Your task to perform on an android device: Open settings on Google Maps Image 0: 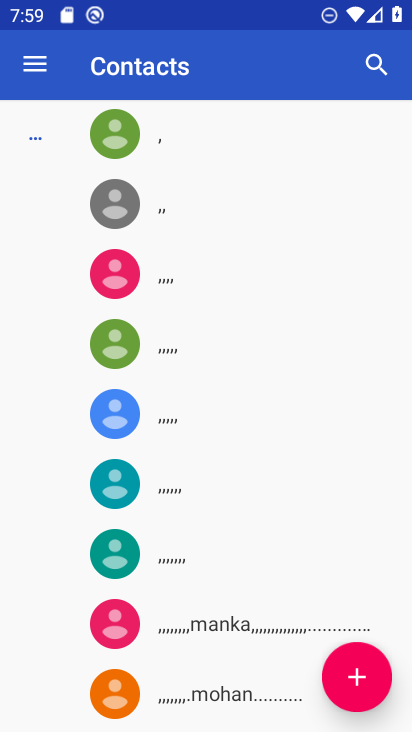
Step 0: press home button
Your task to perform on an android device: Open settings on Google Maps Image 1: 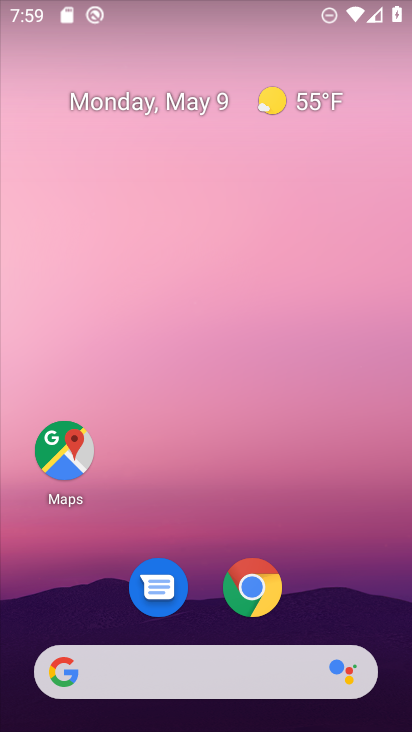
Step 1: drag from (216, 628) to (29, 416)
Your task to perform on an android device: Open settings on Google Maps Image 2: 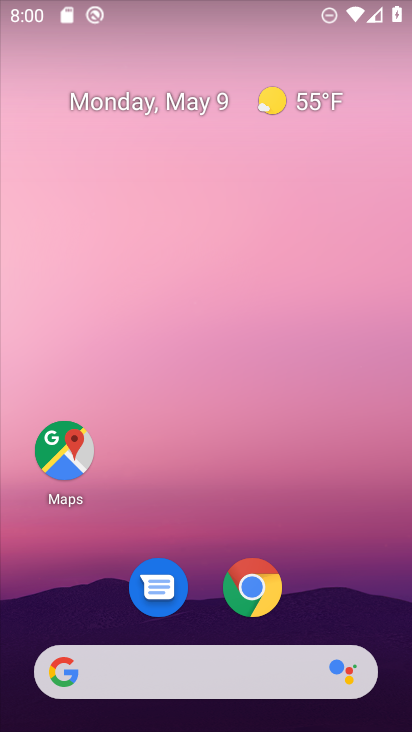
Step 2: drag from (213, 632) to (106, 3)
Your task to perform on an android device: Open settings on Google Maps Image 3: 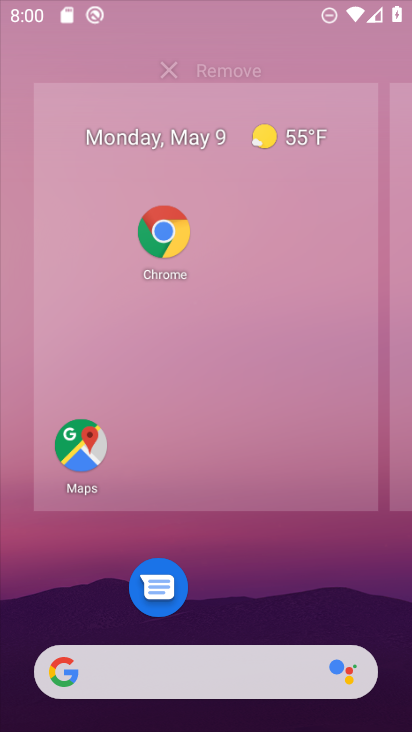
Step 3: click (279, 579)
Your task to perform on an android device: Open settings on Google Maps Image 4: 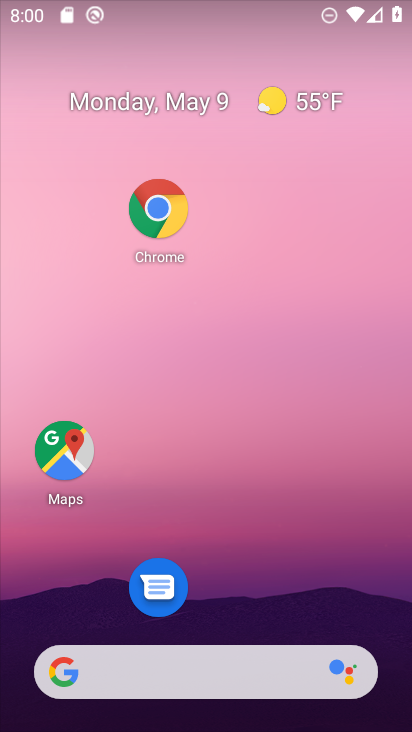
Step 4: drag from (269, 618) to (268, 0)
Your task to perform on an android device: Open settings on Google Maps Image 5: 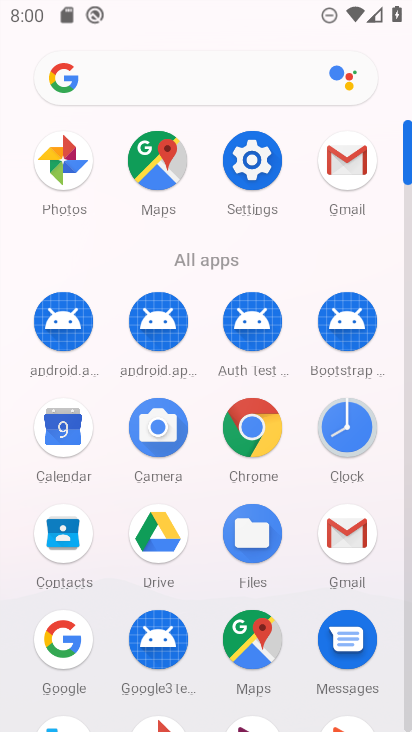
Step 5: click (267, 181)
Your task to perform on an android device: Open settings on Google Maps Image 6: 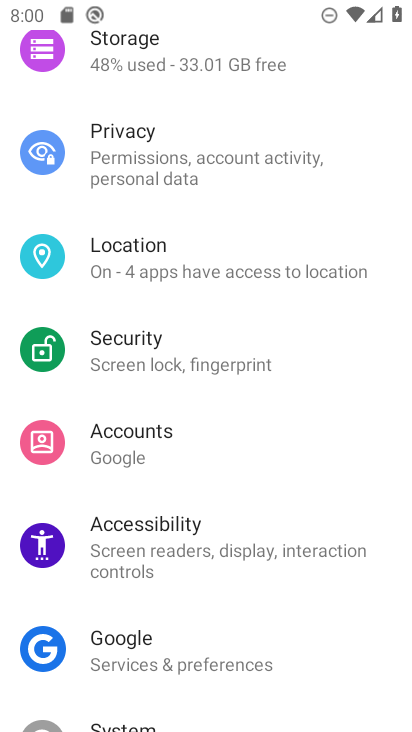
Step 6: press home button
Your task to perform on an android device: Open settings on Google Maps Image 7: 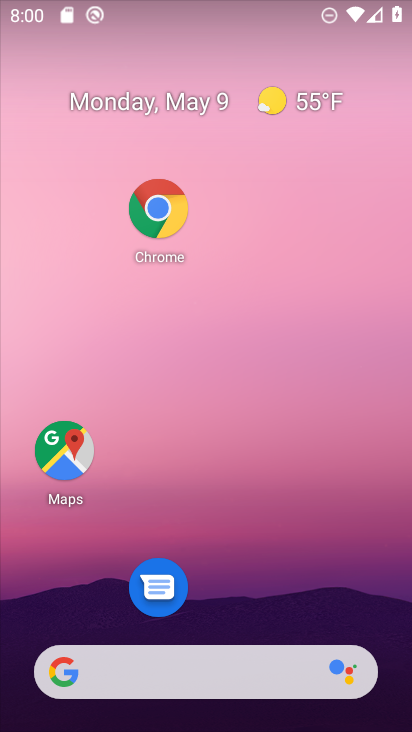
Step 7: click (70, 450)
Your task to perform on an android device: Open settings on Google Maps Image 8: 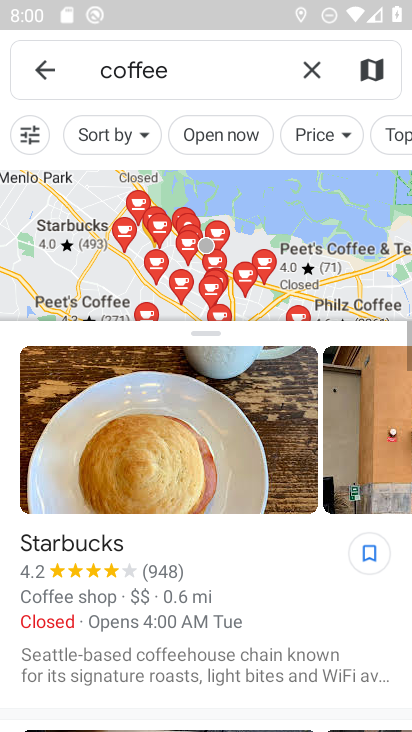
Step 8: click (46, 77)
Your task to perform on an android device: Open settings on Google Maps Image 9: 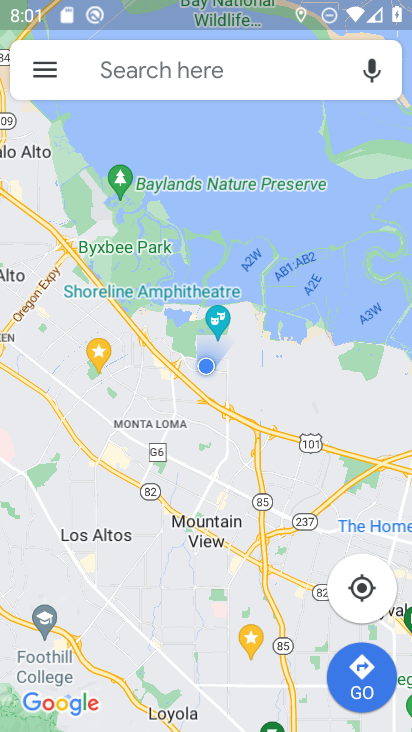
Step 9: click (44, 76)
Your task to perform on an android device: Open settings on Google Maps Image 10: 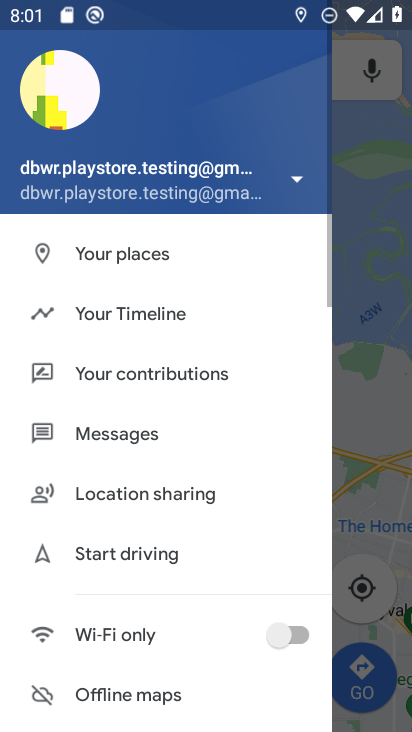
Step 10: drag from (200, 602) to (121, 199)
Your task to perform on an android device: Open settings on Google Maps Image 11: 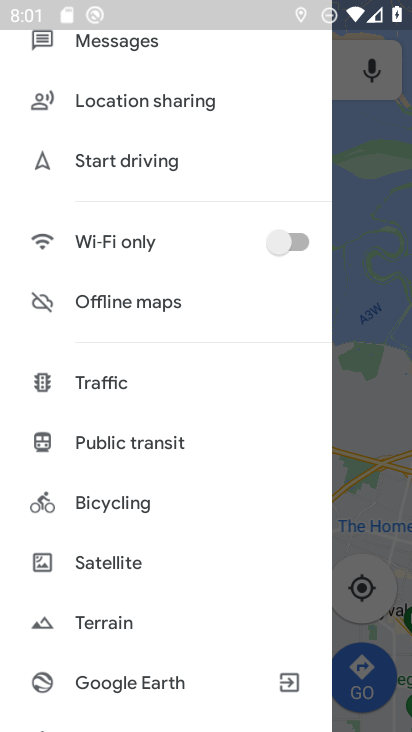
Step 11: drag from (110, 688) to (57, 143)
Your task to perform on an android device: Open settings on Google Maps Image 12: 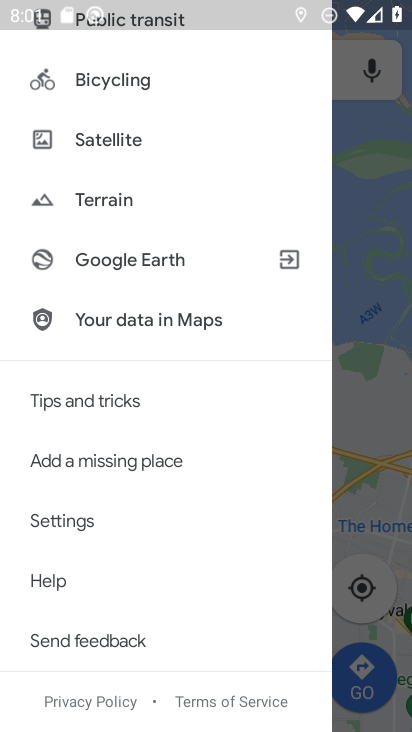
Step 12: click (54, 513)
Your task to perform on an android device: Open settings on Google Maps Image 13: 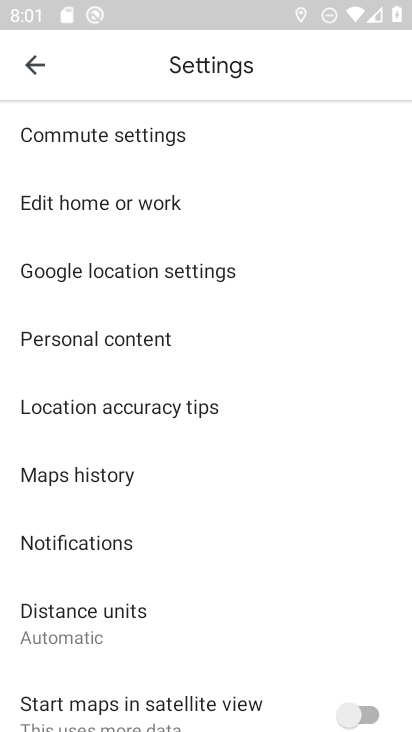
Step 13: task complete